Your task to perform on an android device: Open network settings Image 0: 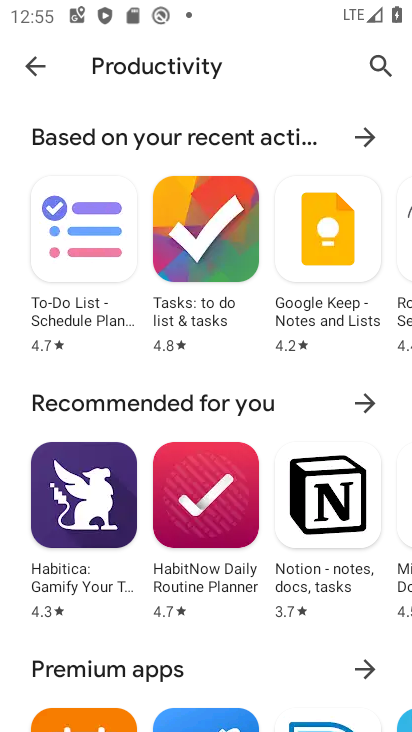
Step 0: press home button
Your task to perform on an android device: Open network settings Image 1: 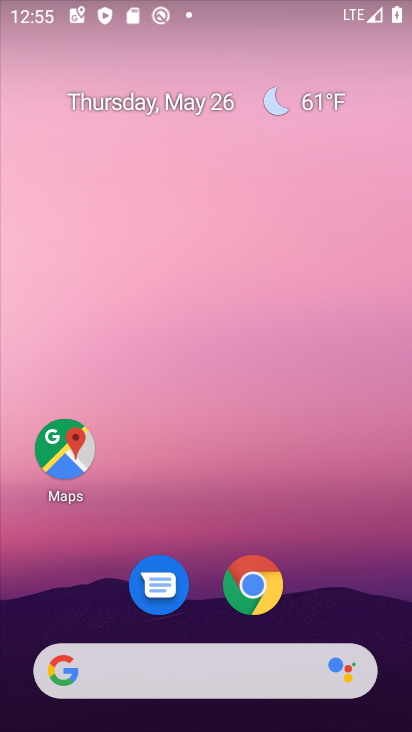
Step 1: drag from (211, 513) to (207, 51)
Your task to perform on an android device: Open network settings Image 2: 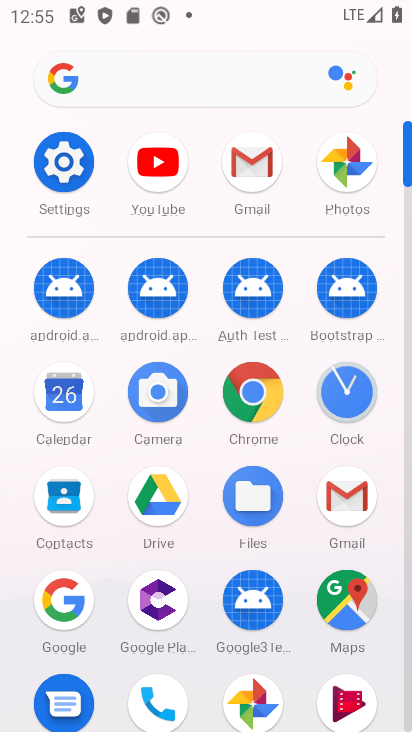
Step 2: click (76, 160)
Your task to perform on an android device: Open network settings Image 3: 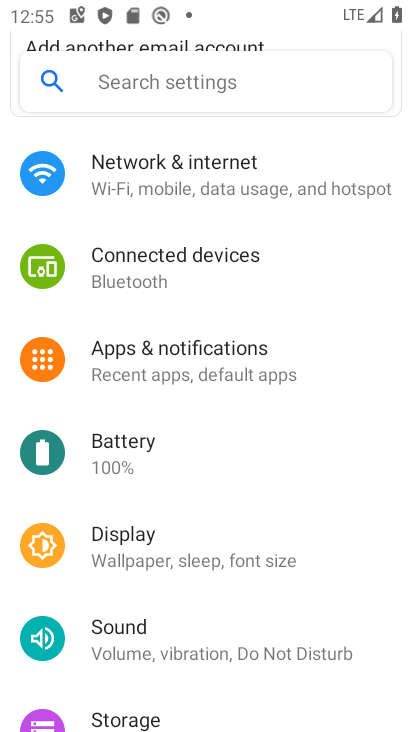
Step 3: drag from (228, 274) to (242, 401)
Your task to perform on an android device: Open network settings Image 4: 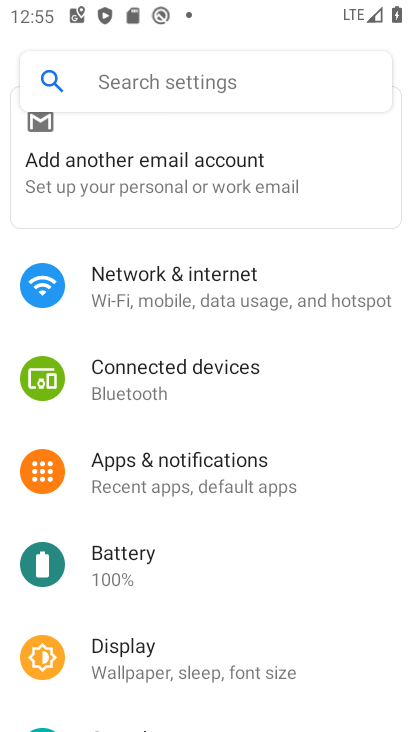
Step 4: click (245, 273)
Your task to perform on an android device: Open network settings Image 5: 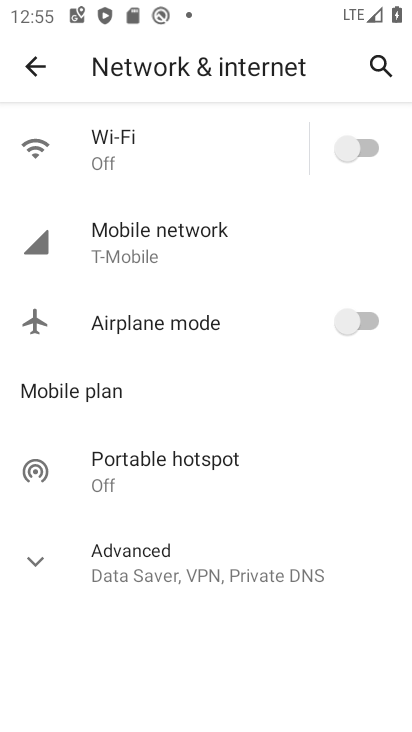
Step 5: task complete